Your task to perform on an android device: toggle pop-ups in chrome Image 0: 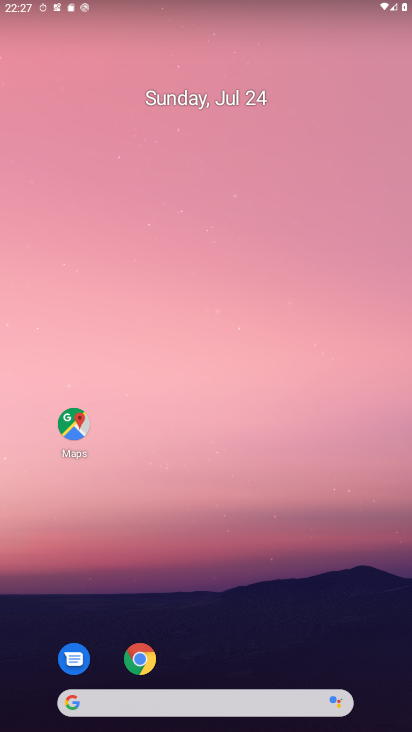
Step 0: click (137, 660)
Your task to perform on an android device: toggle pop-ups in chrome Image 1: 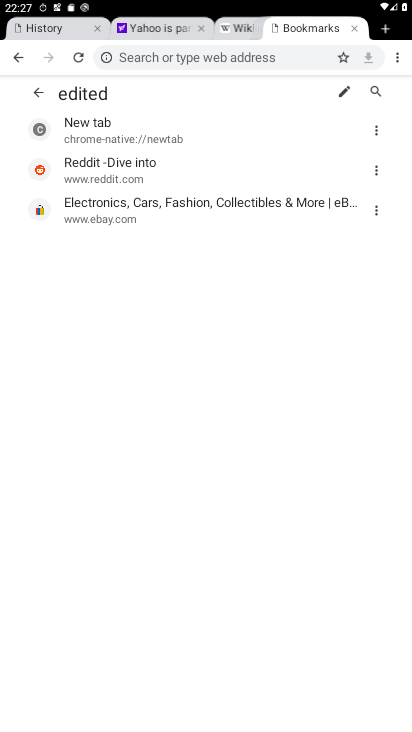
Step 1: click (396, 61)
Your task to perform on an android device: toggle pop-ups in chrome Image 2: 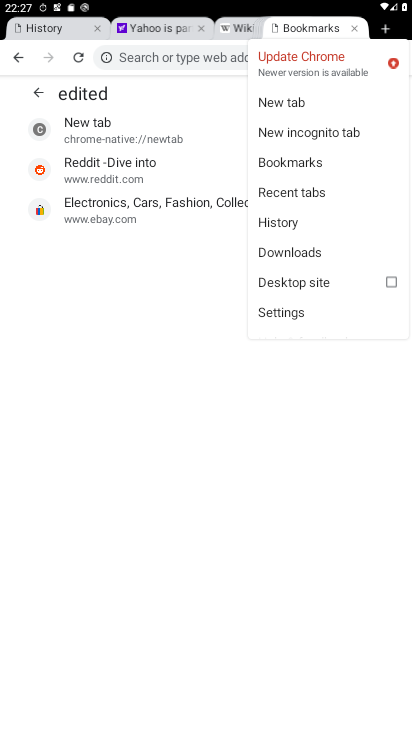
Step 2: click (287, 313)
Your task to perform on an android device: toggle pop-ups in chrome Image 3: 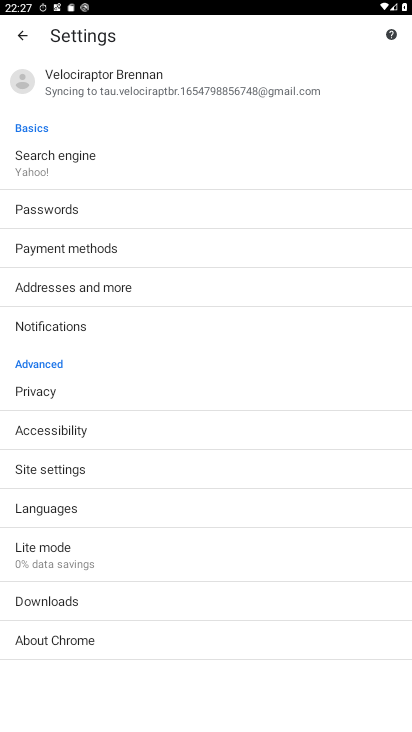
Step 3: click (57, 469)
Your task to perform on an android device: toggle pop-ups in chrome Image 4: 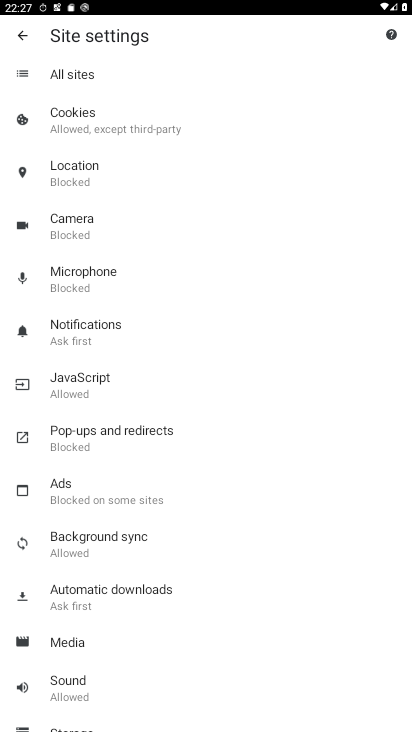
Step 4: click (83, 432)
Your task to perform on an android device: toggle pop-ups in chrome Image 5: 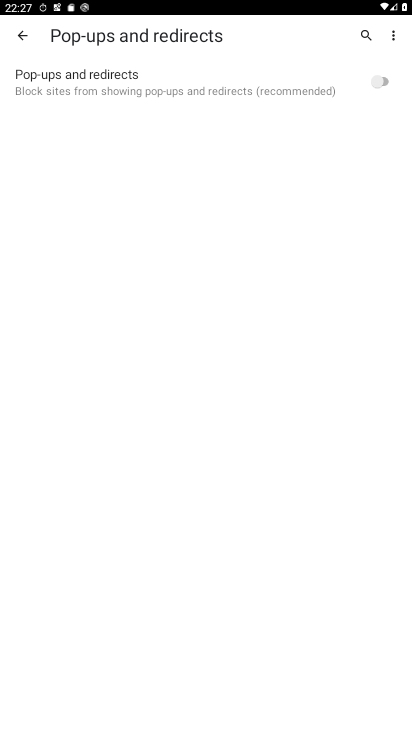
Step 5: click (382, 82)
Your task to perform on an android device: toggle pop-ups in chrome Image 6: 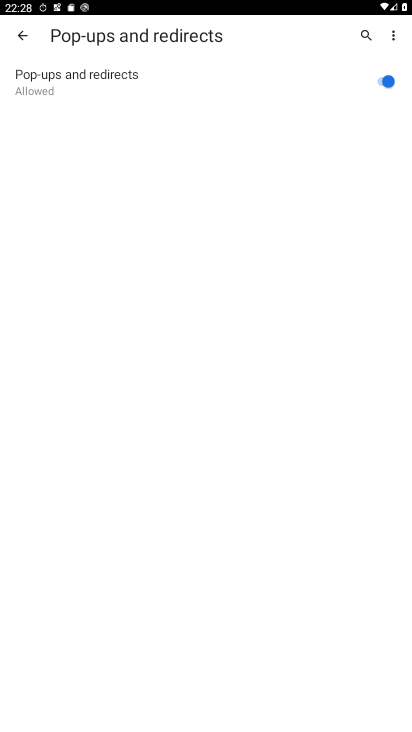
Step 6: task complete